Your task to perform on an android device: toggle javascript in the chrome app Image 0: 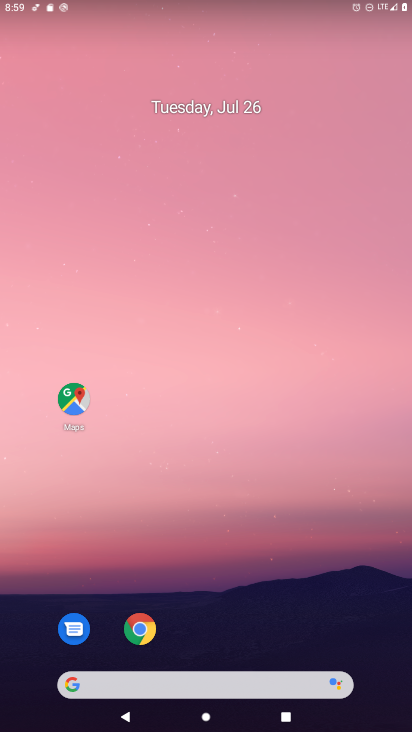
Step 0: drag from (244, 677) to (209, 25)
Your task to perform on an android device: toggle javascript in the chrome app Image 1: 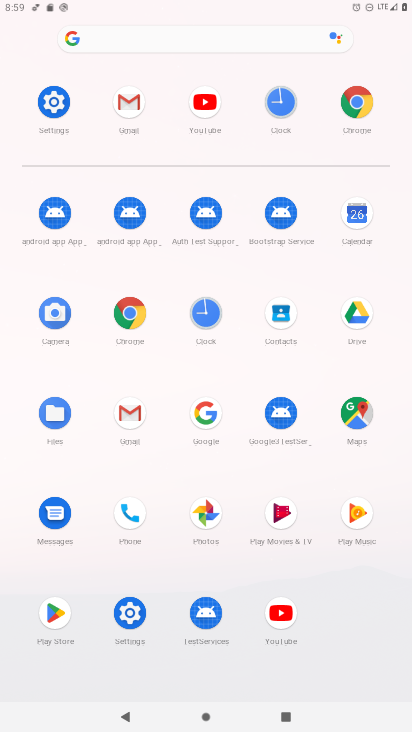
Step 1: click (131, 321)
Your task to perform on an android device: toggle javascript in the chrome app Image 2: 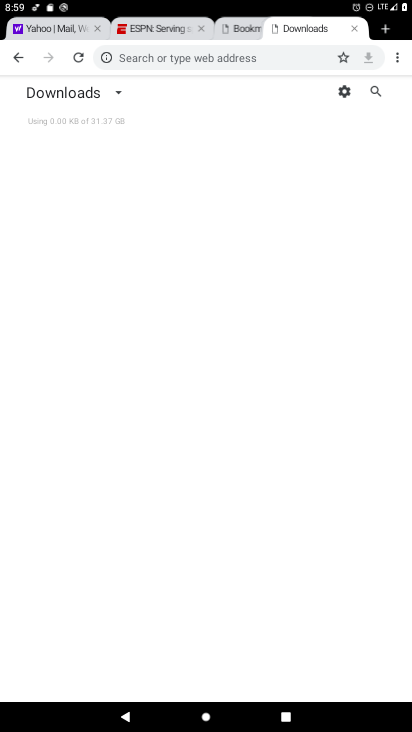
Step 2: drag from (394, 61) to (281, 261)
Your task to perform on an android device: toggle javascript in the chrome app Image 3: 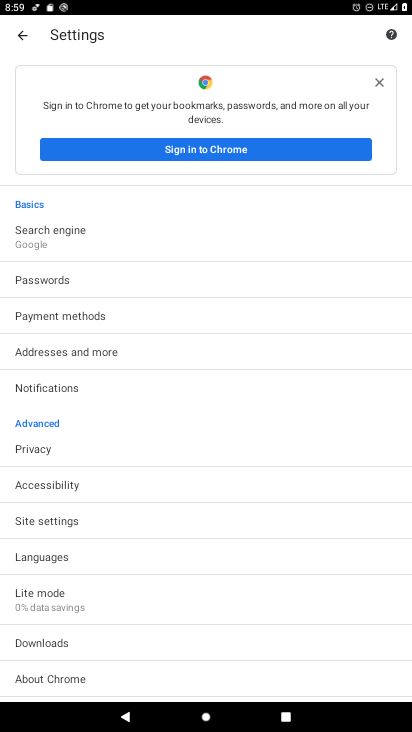
Step 3: click (54, 518)
Your task to perform on an android device: toggle javascript in the chrome app Image 4: 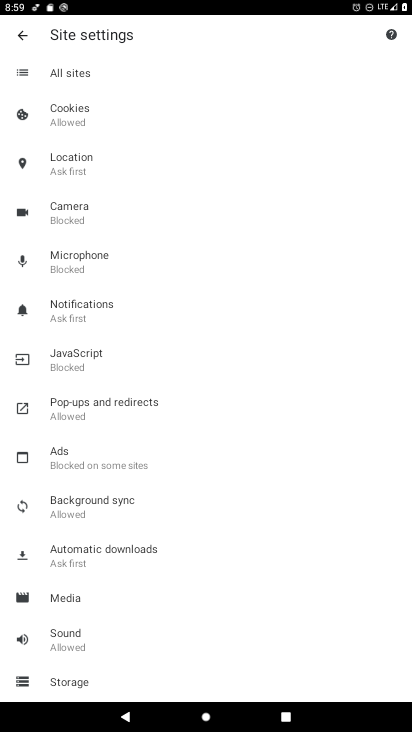
Step 4: click (64, 361)
Your task to perform on an android device: toggle javascript in the chrome app Image 5: 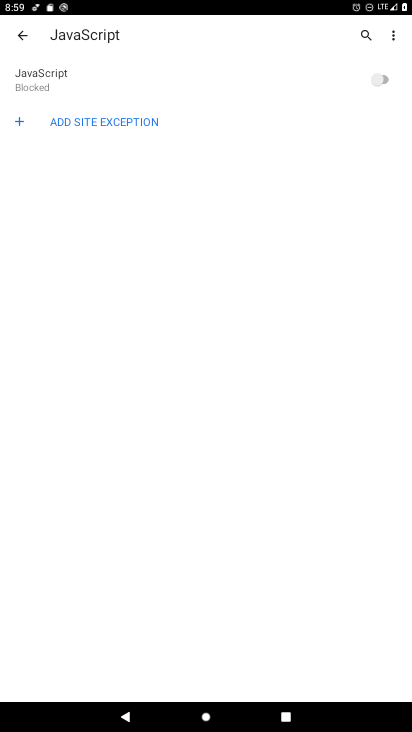
Step 5: click (358, 81)
Your task to perform on an android device: toggle javascript in the chrome app Image 6: 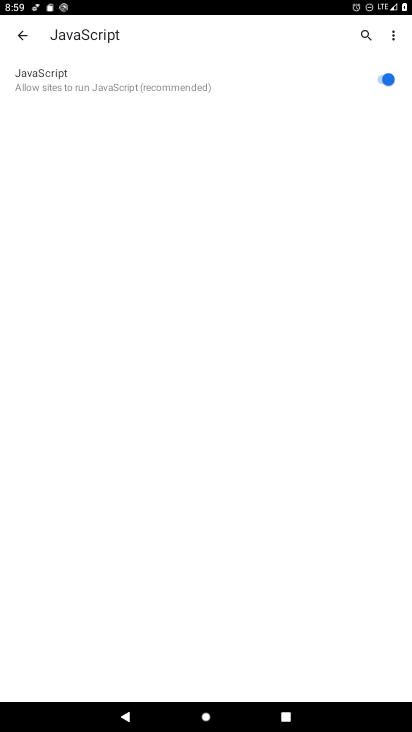
Step 6: task complete